Your task to perform on an android device: toggle priority inbox in the gmail app Image 0: 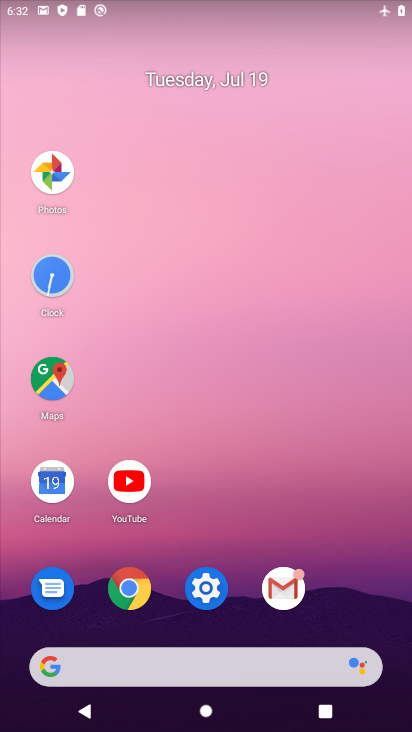
Step 0: click (281, 578)
Your task to perform on an android device: toggle priority inbox in the gmail app Image 1: 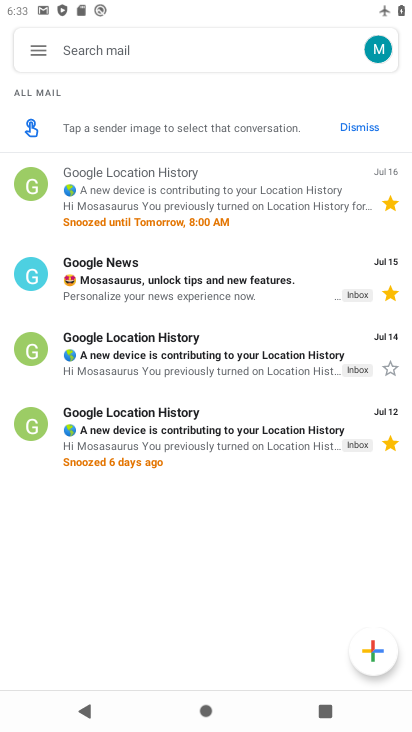
Step 1: click (35, 49)
Your task to perform on an android device: toggle priority inbox in the gmail app Image 2: 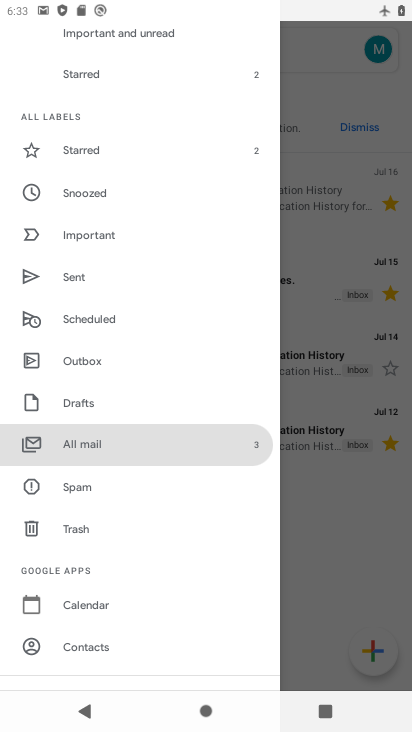
Step 2: drag from (147, 574) to (137, 152)
Your task to perform on an android device: toggle priority inbox in the gmail app Image 3: 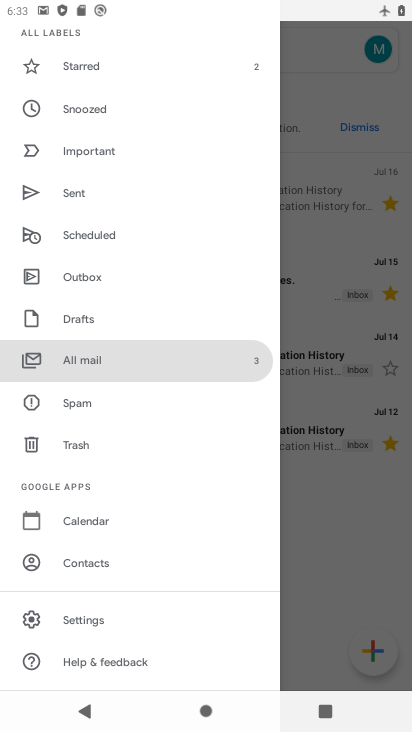
Step 3: click (86, 613)
Your task to perform on an android device: toggle priority inbox in the gmail app Image 4: 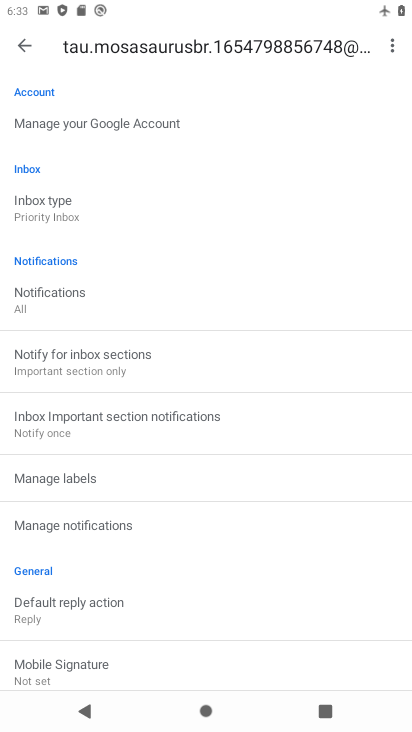
Step 4: click (49, 202)
Your task to perform on an android device: toggle priority inbox in the gmail app Image 5: 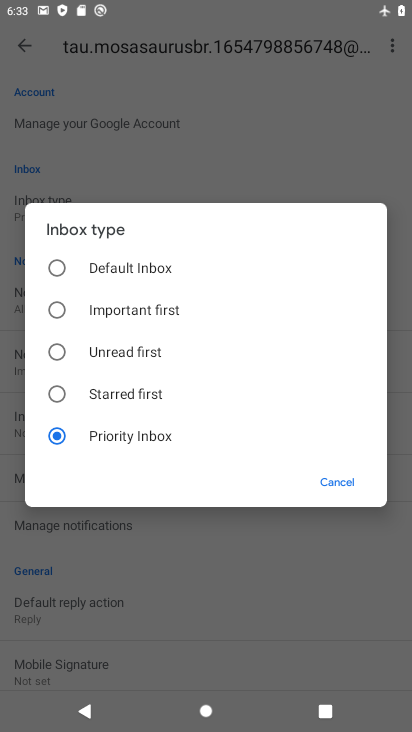
Step 5: click (58, 255)
Your task to perform on an android device: toggle priority inbox in the gmail app Image 6: 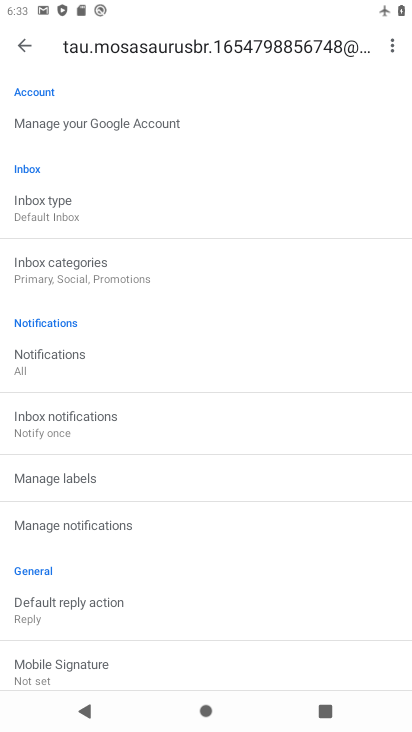
Step 6: task complete